Your task to perform on an android device: search for starred emails in the gmail app Image 0: 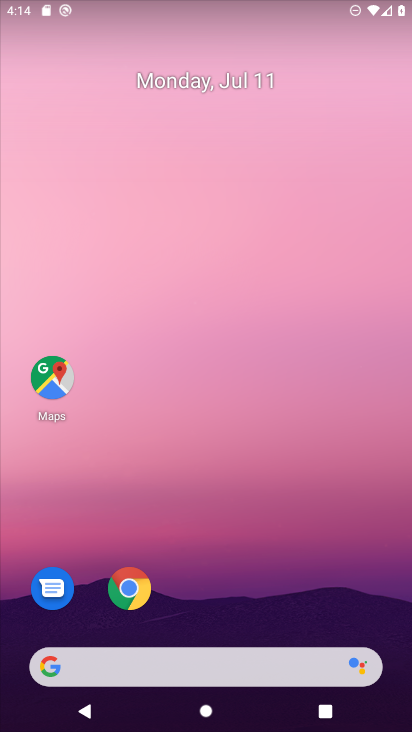
Step 0: drag from (165, 709) to (123, 30)
Your task to perform on an android device: search for starred emails in the gmail app Image 1: 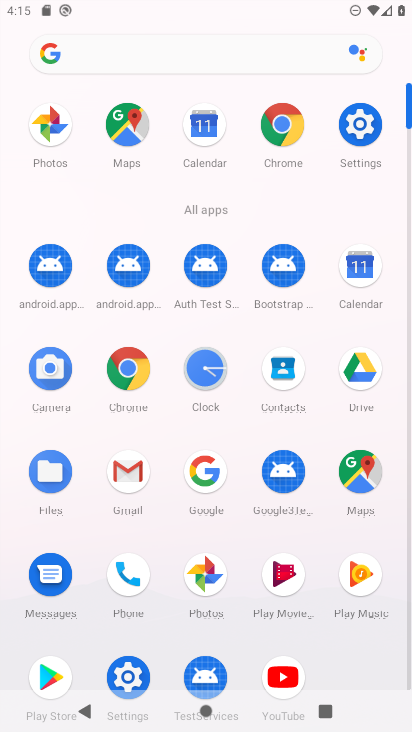
Step 1: click (126, 476)
Your task to perform on an android device: search for starred emails in the gmail app Image 2: 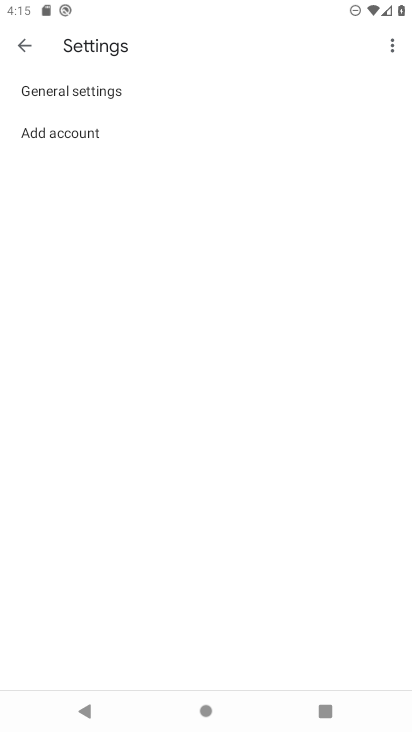
Step 2: click (23, 47)
Your task to perform on an android device: search for starred emails in the gmail app Image 3: 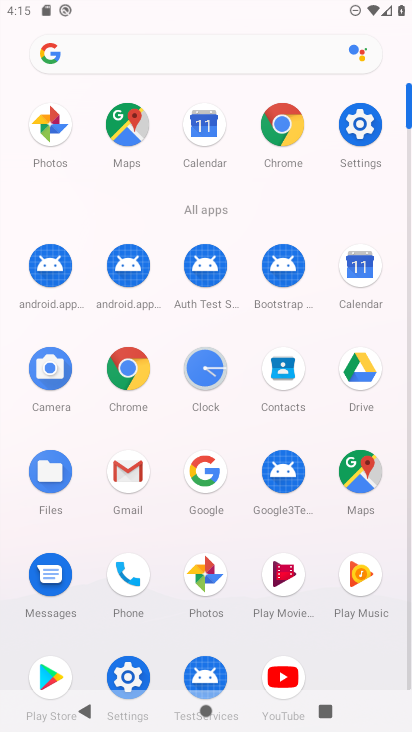
Step 3: click (119, 464)
Your task to perform on an android device: search for starred emails in the gmail app Image 4: 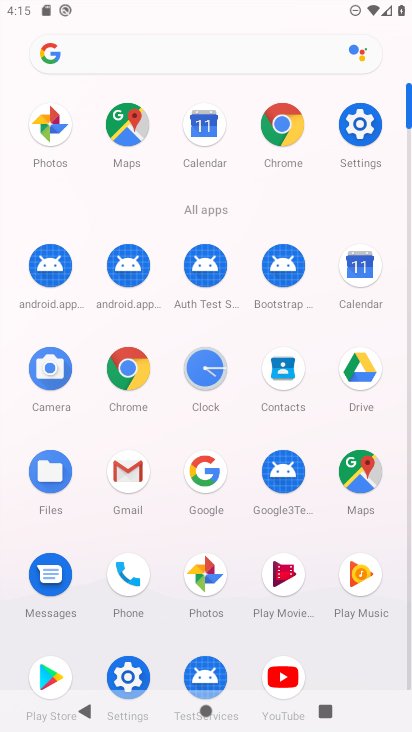
Step 4: click (127, 470)
Your task to perform on an android device: search for starred emails in the gmail app Image 5: 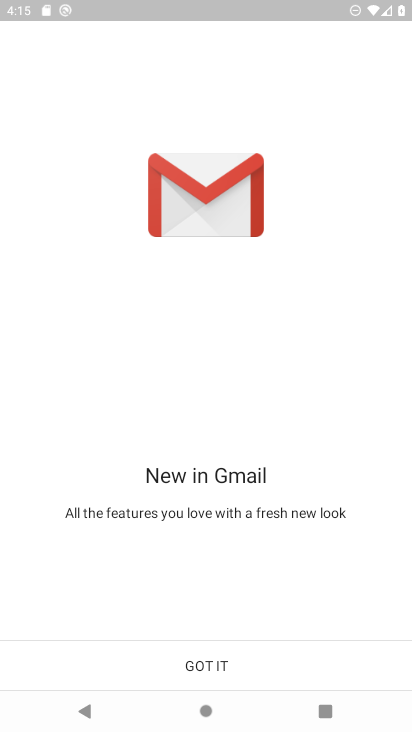
Step 5: click (259, 662)
Your task to perform on an android device: search for starred emails in the gmail app Image 6: 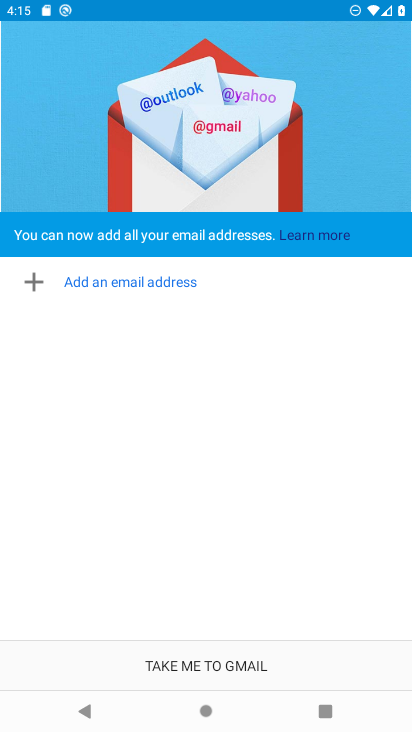
Step 6: click (246, 664)
Your task to perform on an android device: search for starred emails in the gmail app Image 7: 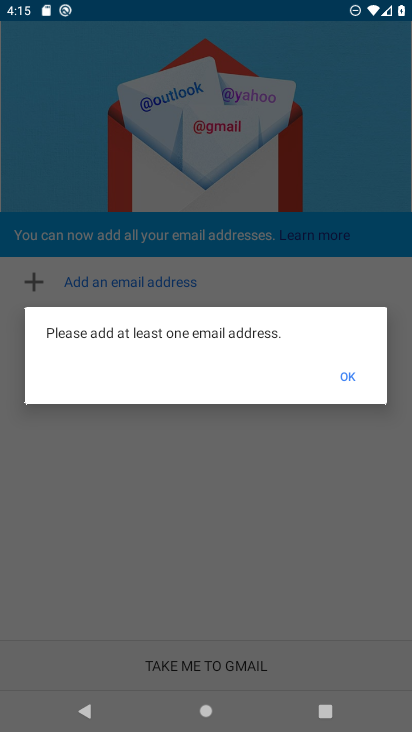
Step 7: click (355, 374)
Your task to perform on an android device: search for starred emails in the gmail app Image 8: 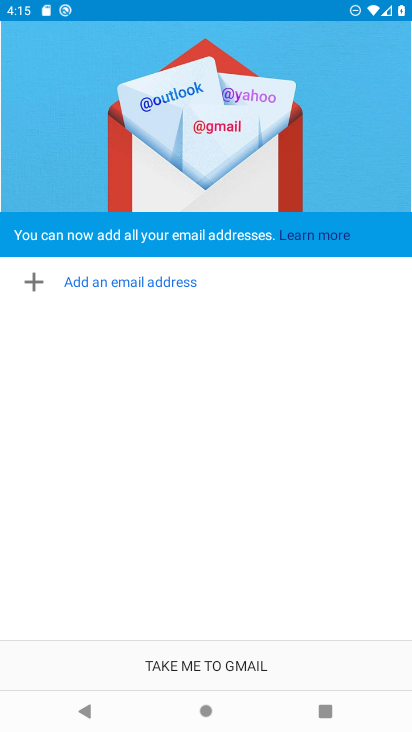
Step 8: task complete